Your task to perform on an android device: Open Reddit.com Image 0: 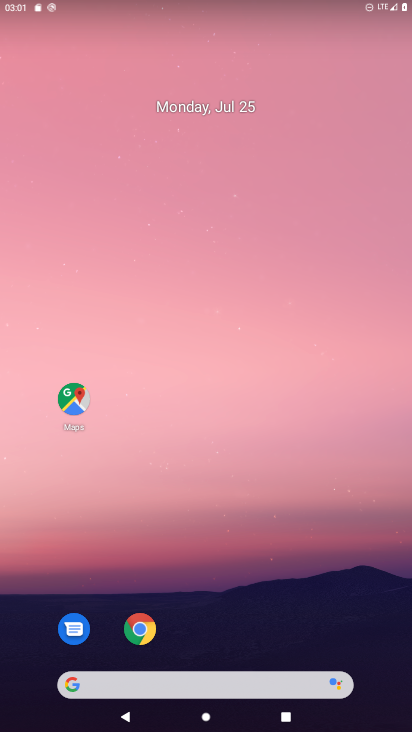
Step 0: drag from (229, 655) to (224, 392)
Your task to perform on an android device: Open Reddit.com Image 1: 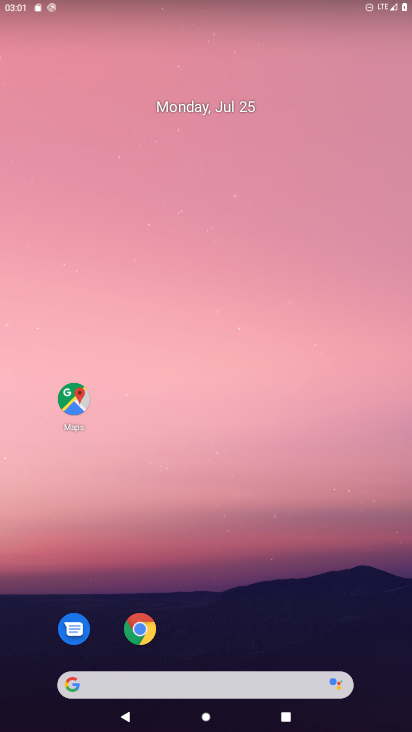
Step 1: click (143, 628)
Your task to perform on an android device: Open Reddit.com Image 2: 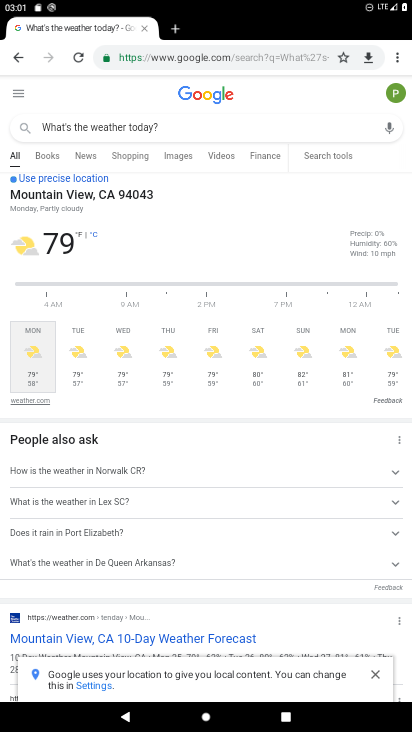
Step 2: click (139, 53)
Your task to perform on an android device: Open Reddit.com Image 3: 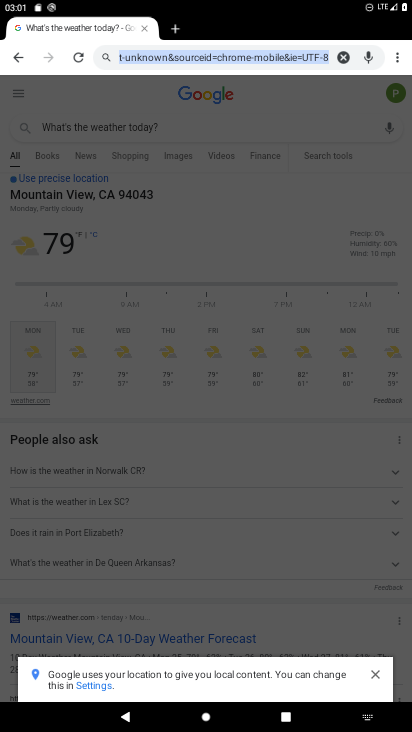
Step 3: click (348, 57)
Your task to perform on an android device: Open Reddit.com Image 4: 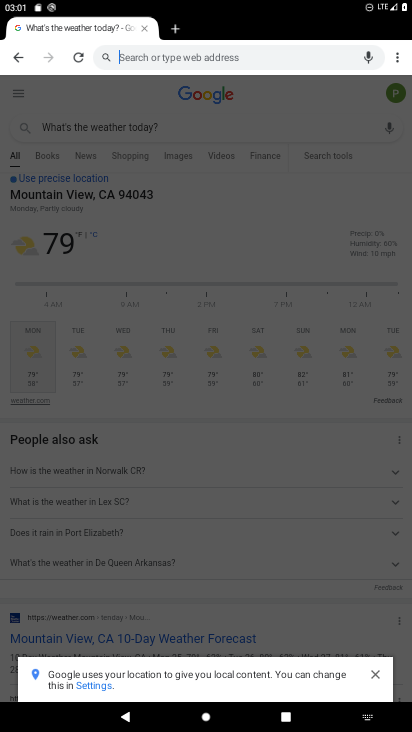
Step 4: type " Reddit.com"
Your task to perform on an android device: Open Reddit.com Image 5: 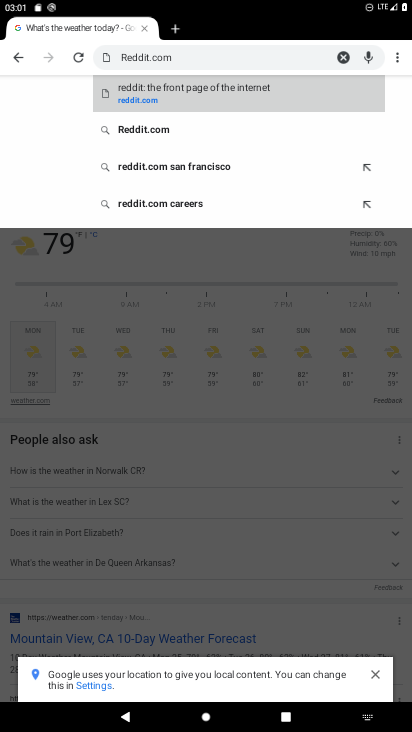
Step 5: click (138, 95)
Your task to perform on an android device: Open Reddit.com Image 6: 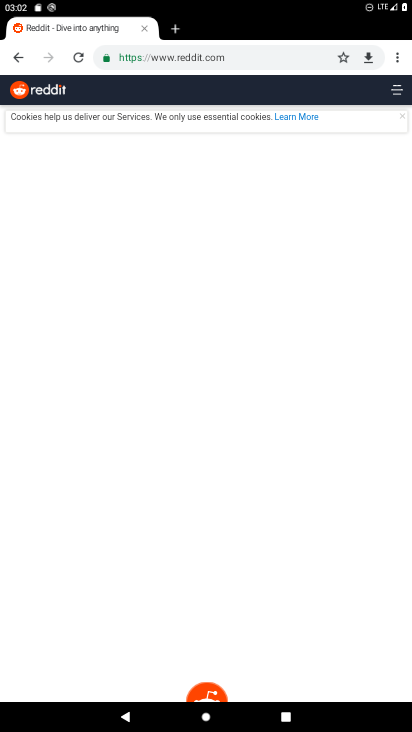
Step 6: task complete